Your task to perform on an android device: Open Google Maps Image 0: 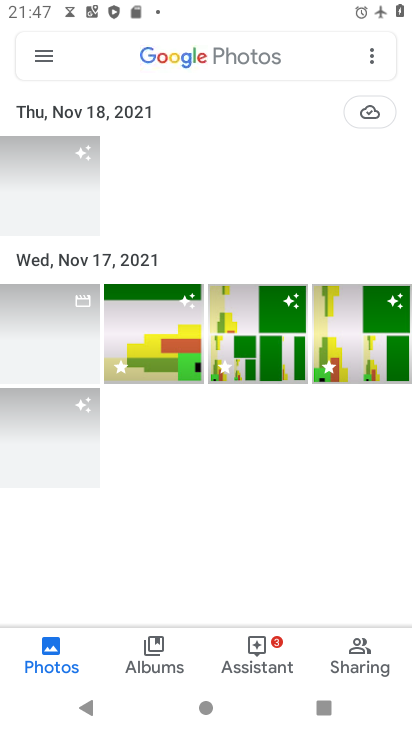
Step 0: press home button
Your task to perform on an android device: Open Google Maps Image 1: 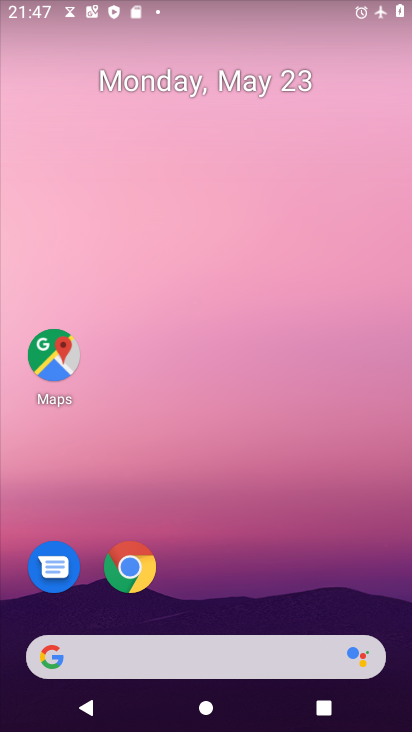
Step 1: click (60, 343)
Your task to perform on an android device: Open Google Maps Image 2: 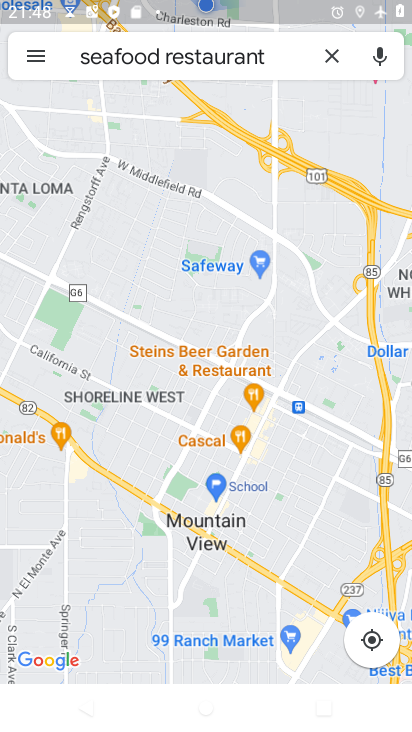
Step 2: task complete